Your task to perform on an android device: open wifi settings Image 0: 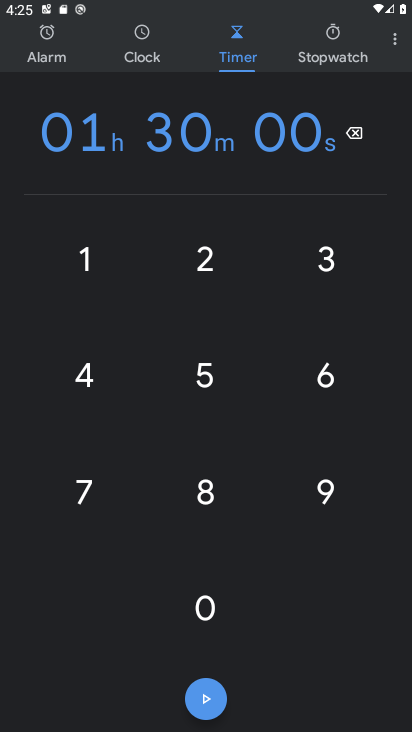
Step 0: press home button
Your task to perform on an android device: open wifi settings Image 1: 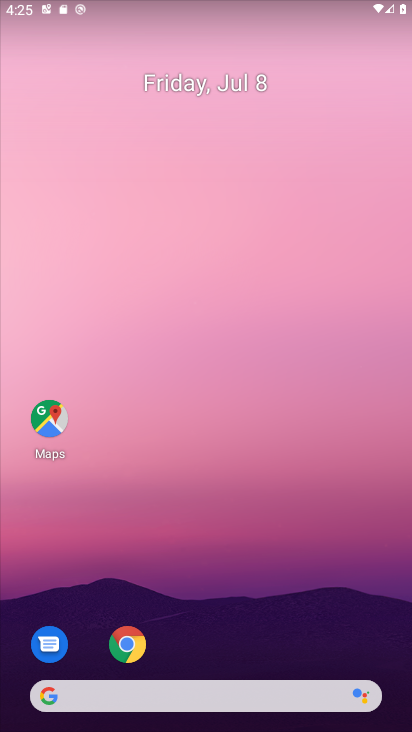
Step 1: drag from (385, 648) to (297, 169)
Your task to perform on an android device: open wifi settings Image 2: 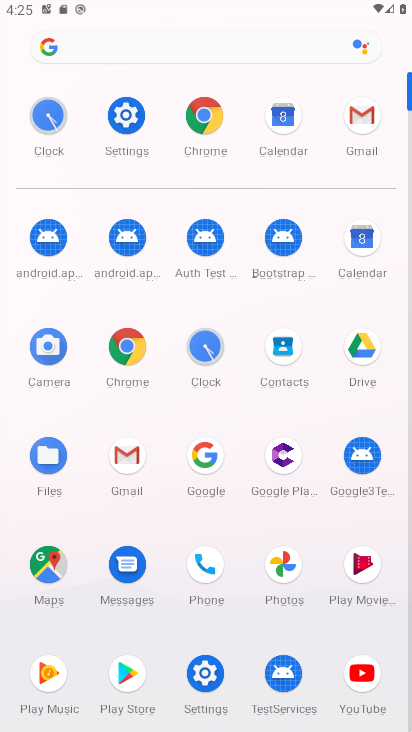
Step 2: click (205, 677)
Your task to perform on an android device: open wifi settings Image 3: 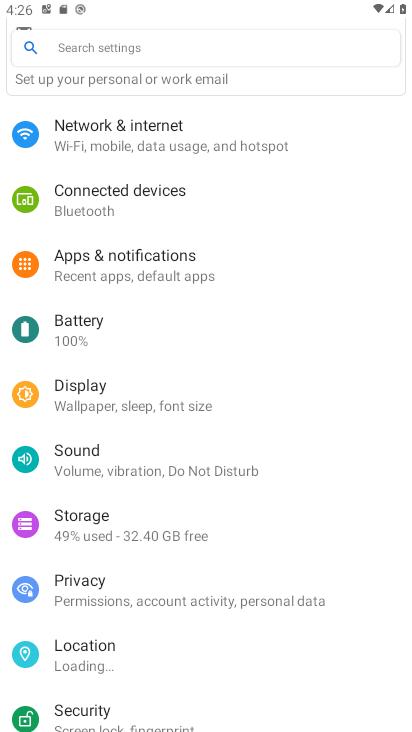
Step 3: click (98, 128)
Your task to perform on an android device: open wifi settings Image 4: 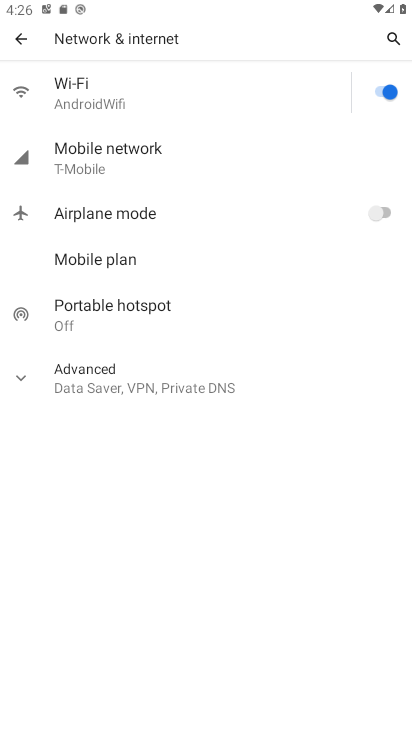
Step 4: click (74, 91)
Your task to perform on an android device: open wifi settings Image 5: 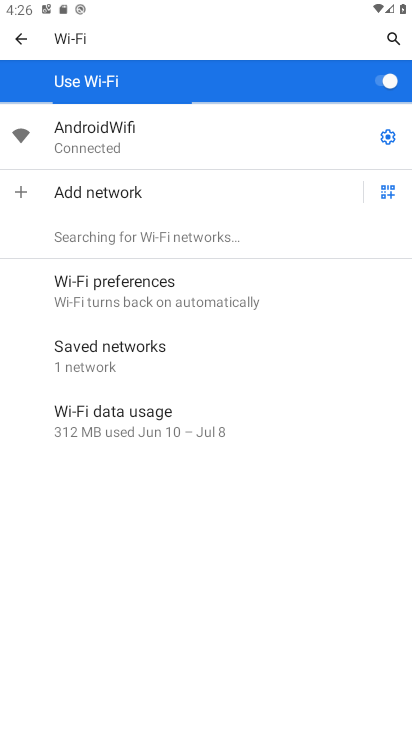
Step 5: click (387, 135)
Your task to perform on an android device: open wifi settings Image 6: 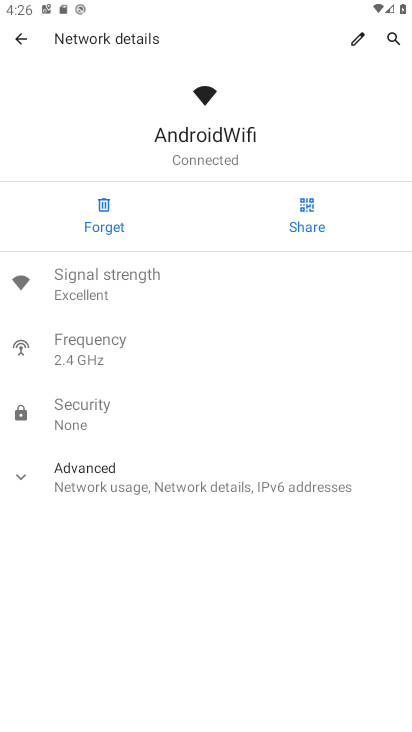
Step 6: task complete